Your task to perform on an android device: turn on data saver in the chrome app Image 0: 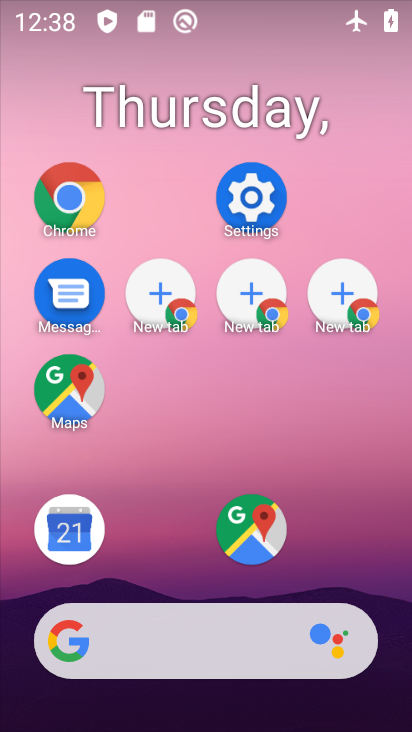
Step 0: click (154, 181)
Your task to perform on an android device: turn on data saver in the chrome app Image 1: 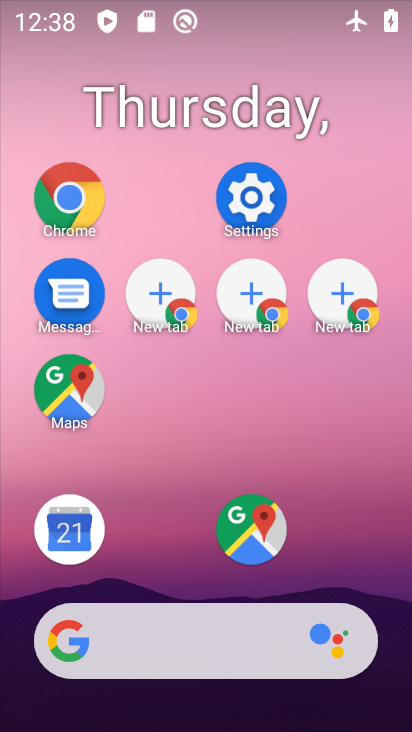
Step 1: drag from (176, 234) to (151, 192)
Your task to perform on an android device: turn on data saver in the chrome app Image 2: 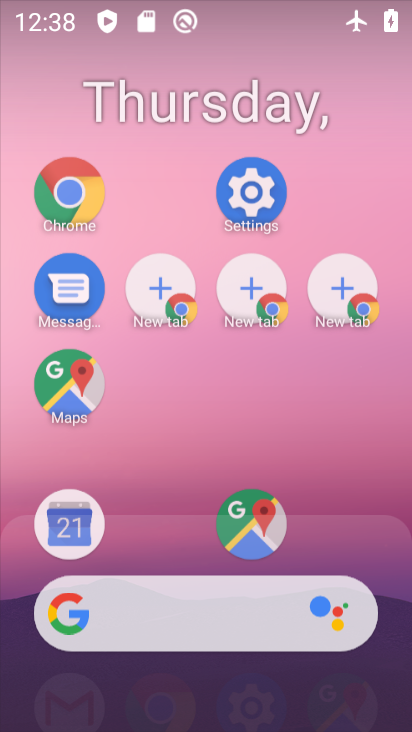
Step 2: click (170, 255)
Your task to perform on an android device: turn on data saver in the chrome app Image 3: 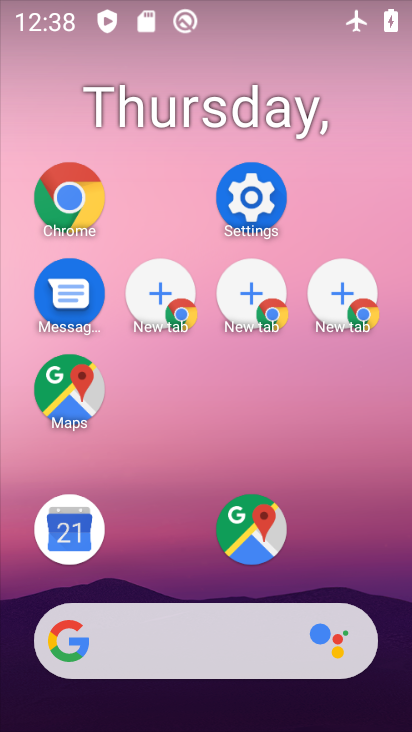
Step 3: click (111, 155)
Your task to perform on an android device: turn on data saver in the chrome app Image 4: 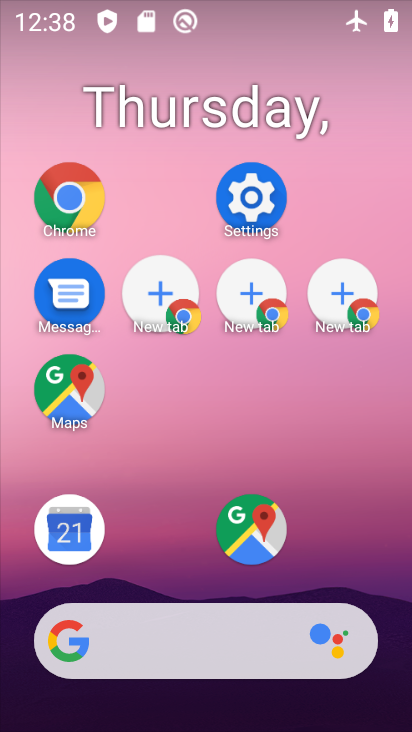
Step 4: click (188, 274)
Your task to perform on an android device: turn on data saver in the chrome app Image 5: 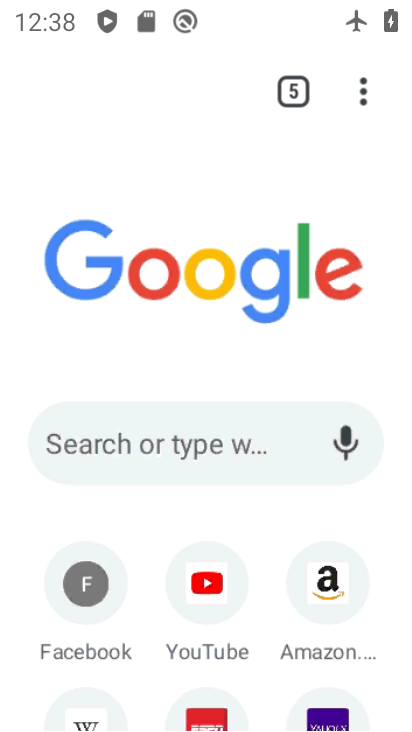
Step 5: drag from (331, 556) to (172, 176)
Your task to perform on an android device: turn on data saver in the chrome app Image 6: 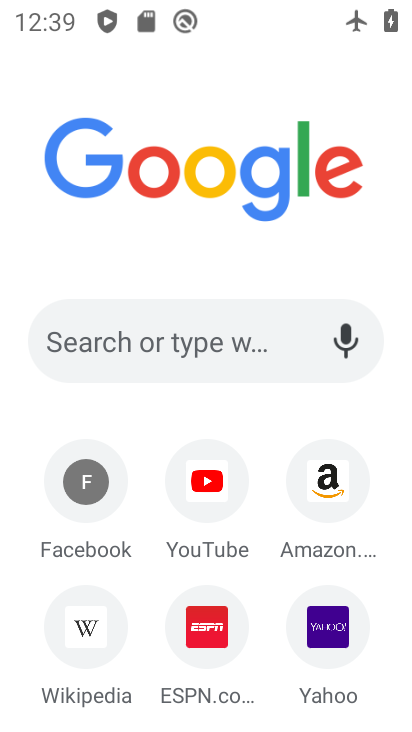
Step 6: click (357, 90)
Your task to perform on an android device: turn on data saver in the chrome app Image 7: 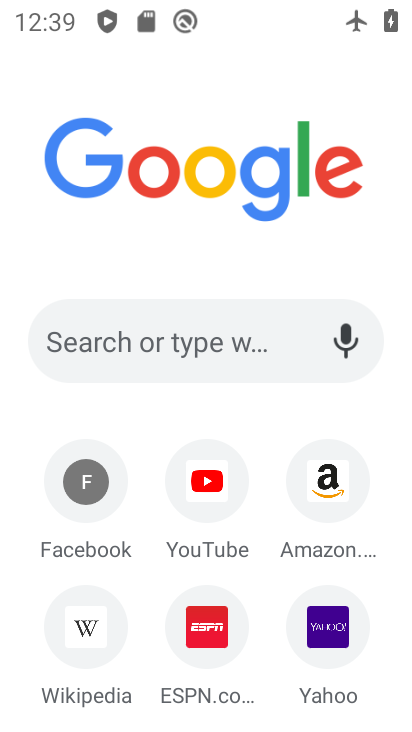
Step 7: drag from (336, 150) to (189, 645)
Your task to perform on an android device: turn on data saver in the chrome app Image 8: 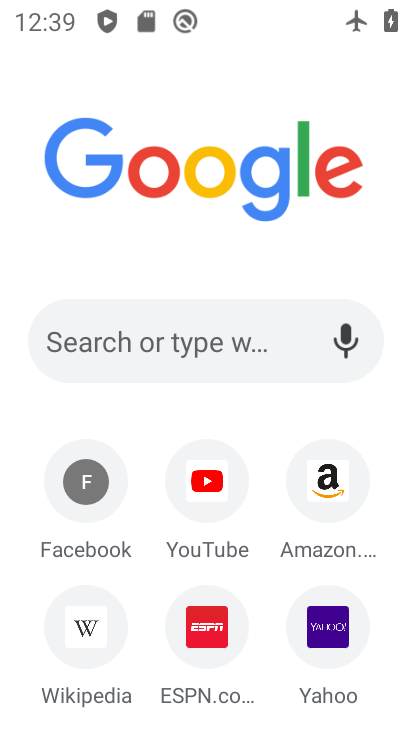
Step 8: drag from (277, 140) to (285, 500)
Your task to perform on an android device: turn on data saver in the chrome app Image 9: 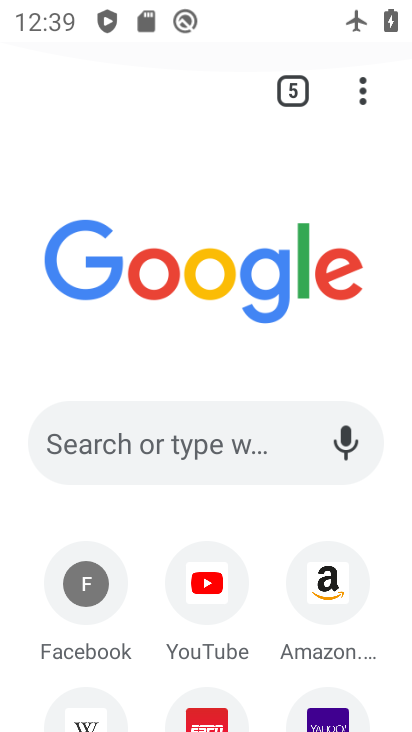
Step 9: drag from (209, 167) to (277, 481)
Your task to perform on an android device: turn on data saver in the chrome app Image 10: 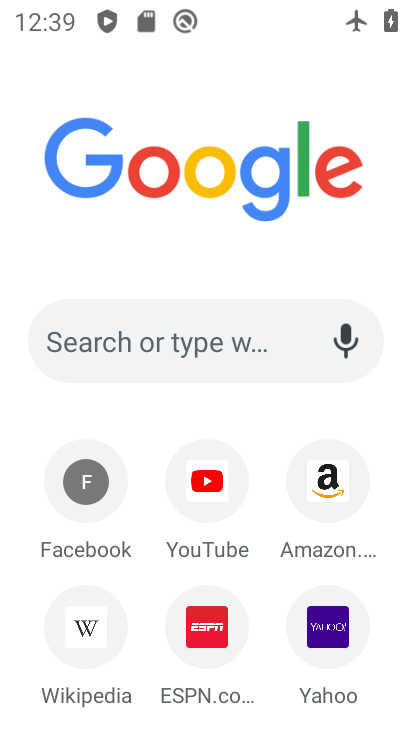
Step 10: click (364, 97)
Your task to perform on an android device: turn on data saver in the chrome app Image 11: 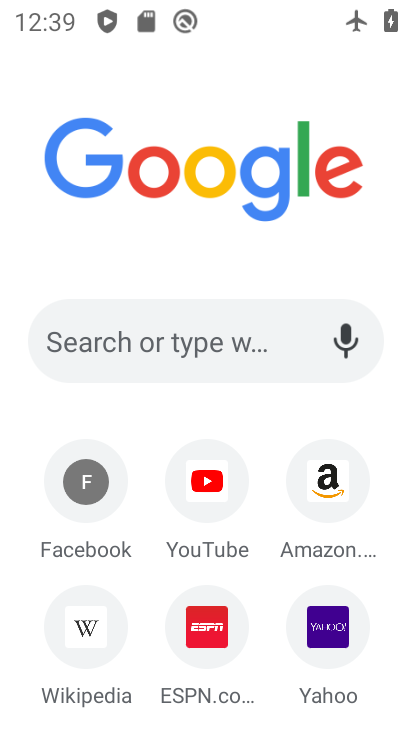
Step 11: click (363, 98)
Your task to perform on an android device: turn on data saver in the chrome app Image 12: 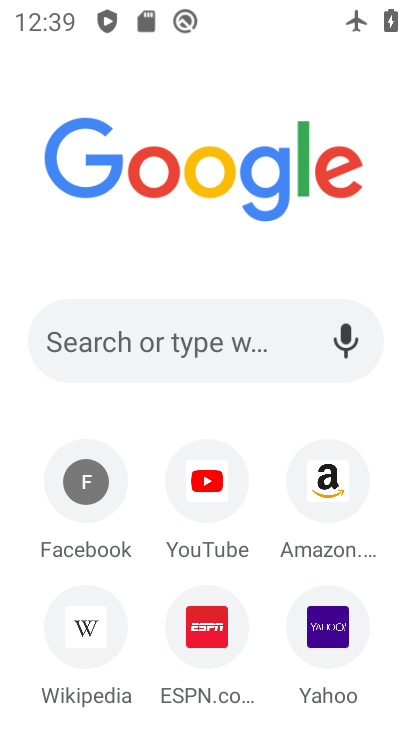
Step 12: drag from (283, 167) to (325, 496)
Your task to perform on an android device: turn on data saver in the chrome app Image 13: 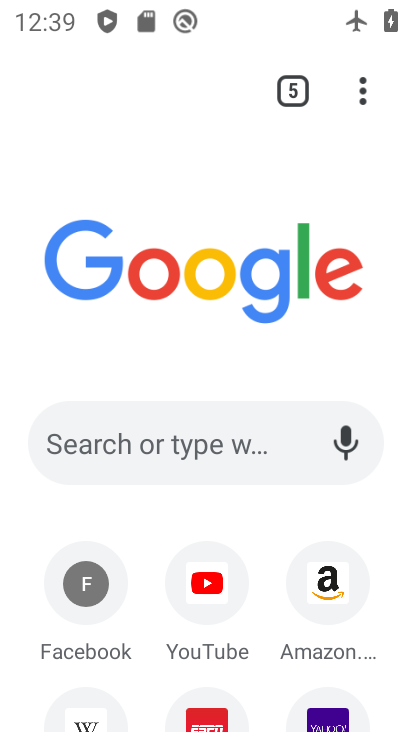
Step 13: click (363, 504)
Your task to perform on an android device: turn on data saver in the chrome app Image 14: 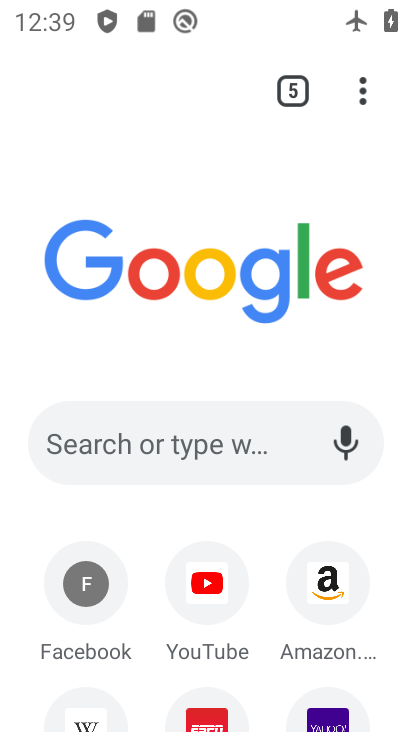
Step 14: drag from (359, 87) to (91, 552)
Your task to perform on an android device: turn on data saver in the chrome app Image 15: 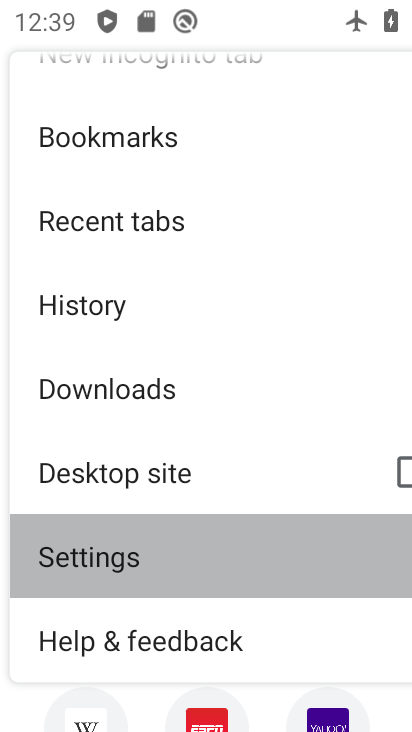
Step 15: click (91, 552)
Your task to perform on an android device: turn on data saver in the chrome app Image 16: 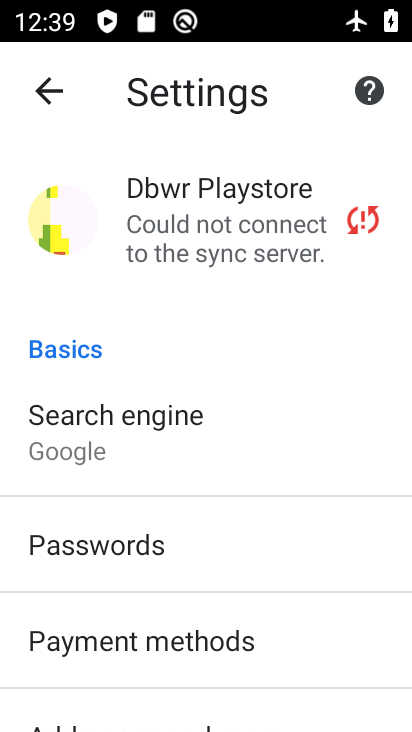
Step 16: drag from (50, 247) to (187, 106)
Your task to perform on an android device: turn on data saver in the chrome app Image 17: 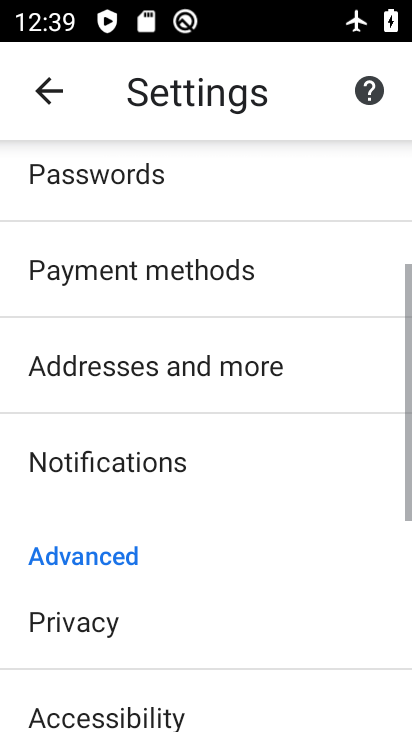
Step 17: drag from (161, 234) to (178, 290)
Your task to perform on an android device: turn on data saver in the chrome app Image 18: 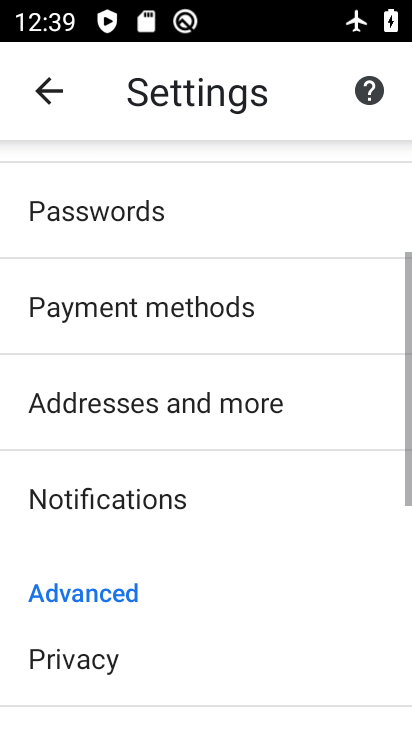
Step 18: drag from (171, 575) to (191, 357)
Your task to perform on an android device: turn on data saver in the chrome app Image 19: 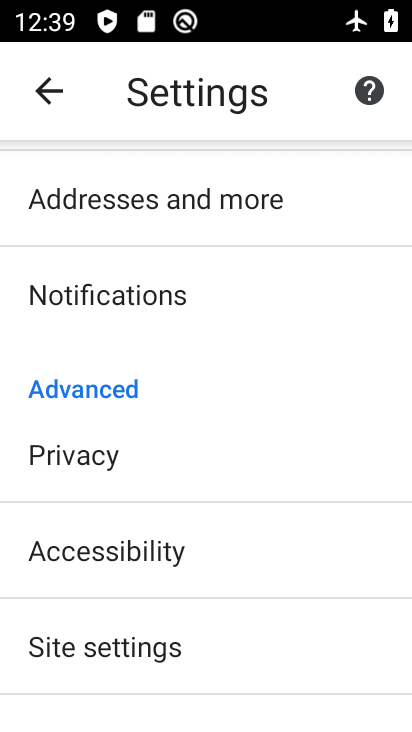
Step 19: click (131, 227)
Your task to perform on an android device: turn on data saver in the chrome app Image 20: 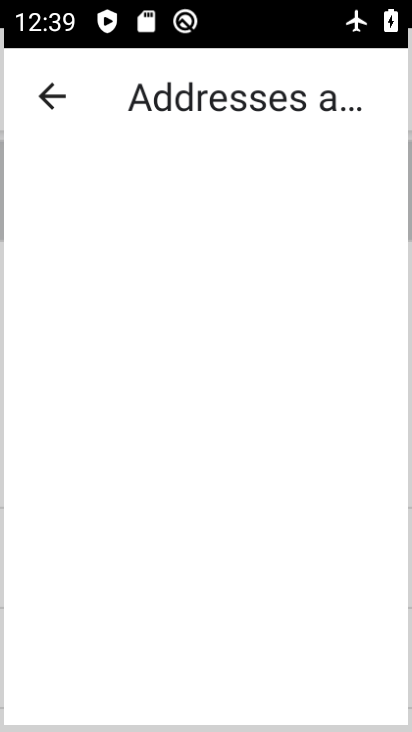
Step 20: drag from (148, 488) to (147, 187)
Your task to perform on an android device: turn on data saver in the chrome app Image 21: 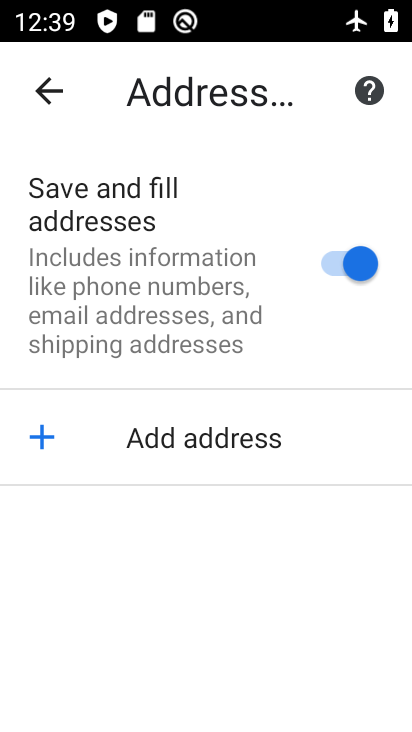
Step 21: click (41, 83)
Your task to perform on an android device: turn on data saver in the chrome app Image 22: 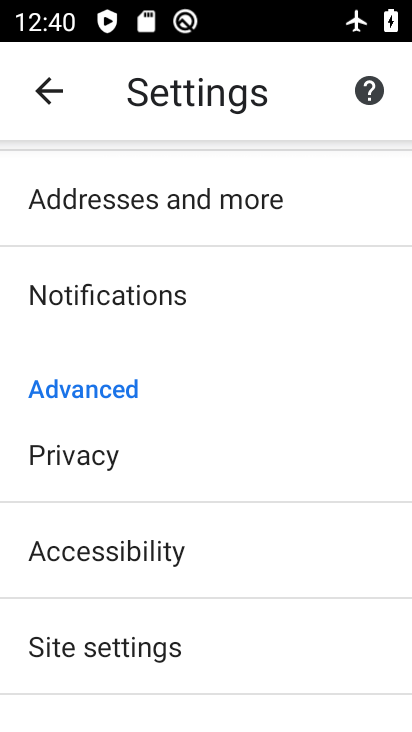
Step 22: drag from (102, 629) to (38, 403)
Your task to perform on an android device: turn on data saver in the chrome app Image 23: 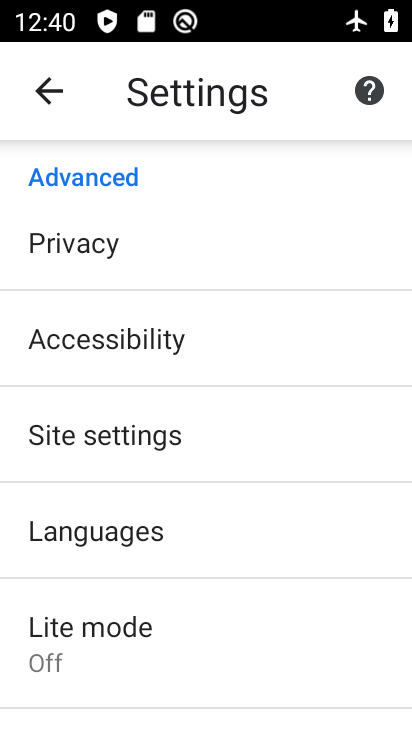
Step 23: click (137, 331)
Your task to perform on an android device: turn on data saver in the chrome app Image 24: 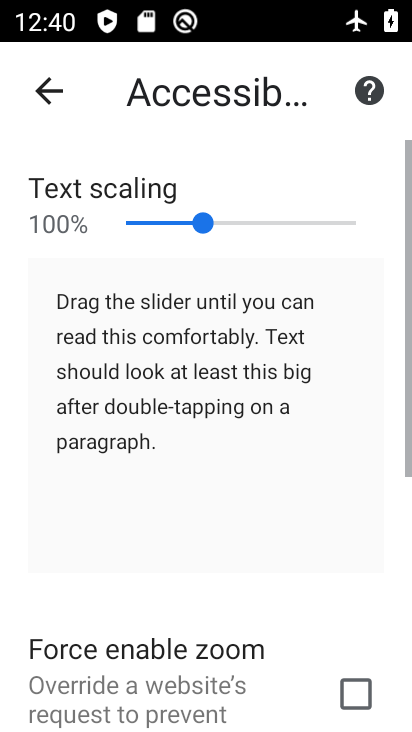
Step 24: click (192, 284)
Your task to perform on an android device: turn on data saver in the chrome app Image 25: 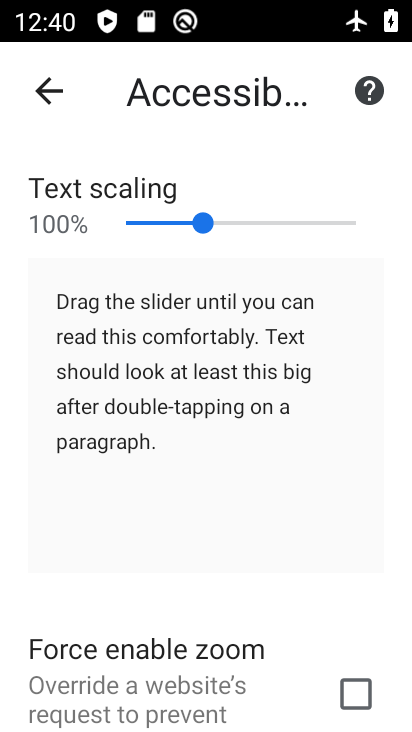
Step 25: click (51, 81)
Your task to perform on an android device: turn on data saver in the chrome app Image 26: 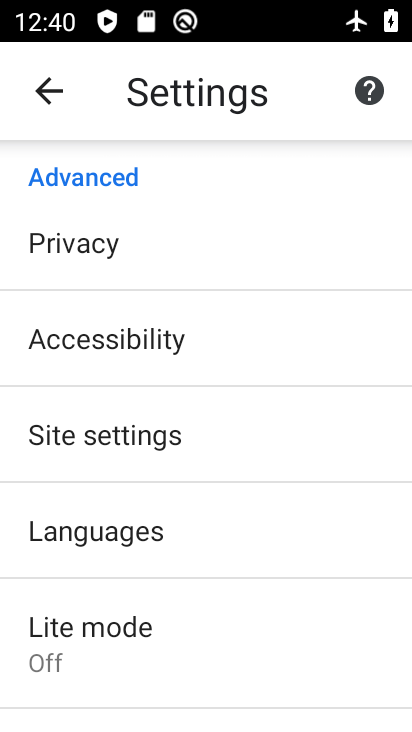
Step 26: click (79, 627)
Your task to perform on an android device: turn on data saver in the chrome app Image 27: 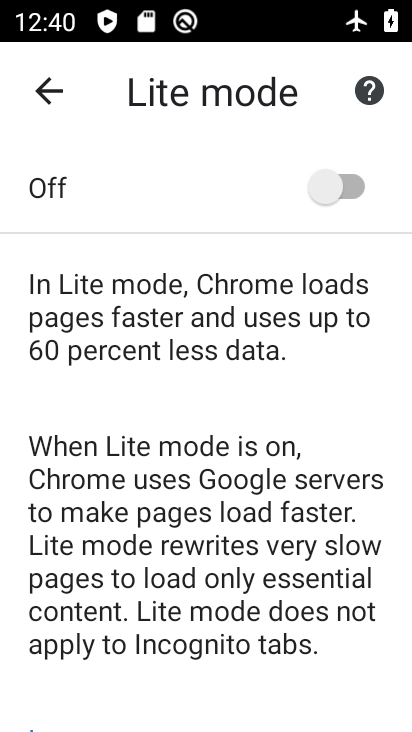
Step 27: click (36, 84)
Your task to perform on an android device: turn on data saver in the chrome app Image 28: 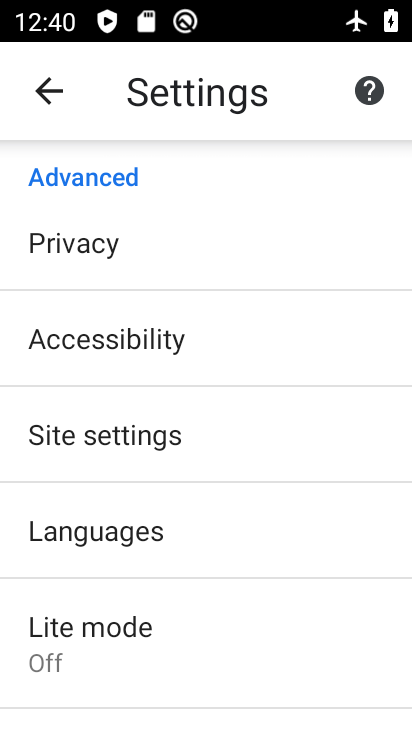
Step 28: click (88, 618)
Your task to perform on an android device: turn on data saver in the chrome app Image 29: 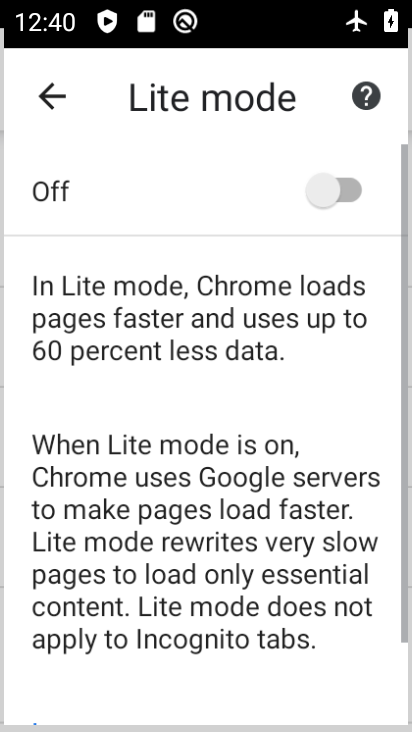
Step 29: click (88, 618)
Your task to perform on an android device: turn on data saver in the chrome app Image 30: 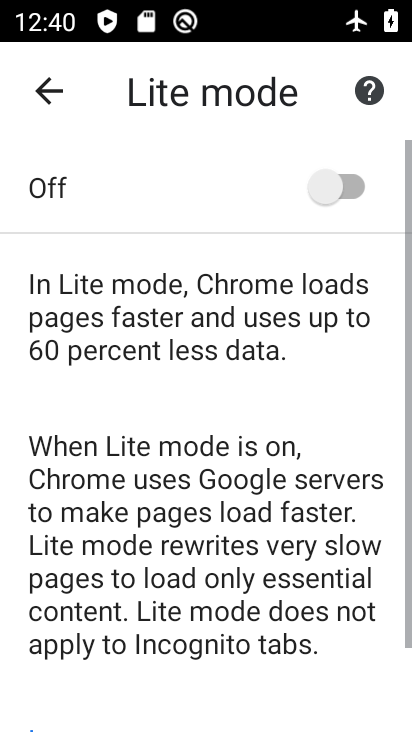
Step 30: click (88, 618)
Your task to perform on an android device: turn on data saver in the chrome app Image 31: 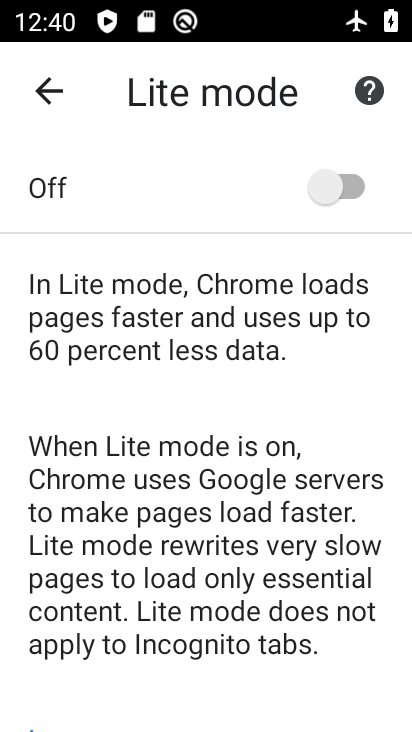
Step 31: click (326, 194)
Your task to perform on an android device: turn on data saver in the chrome app Image 32: 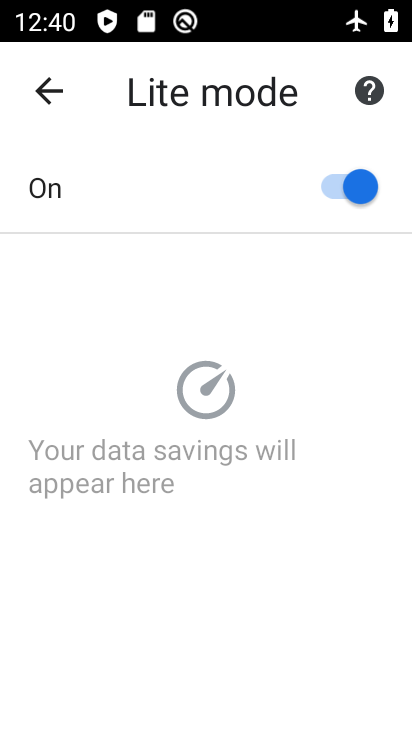
Step 32: click (335, 182)
Your task to perform on an android device: turn on data saver in the chrome app Image 33: 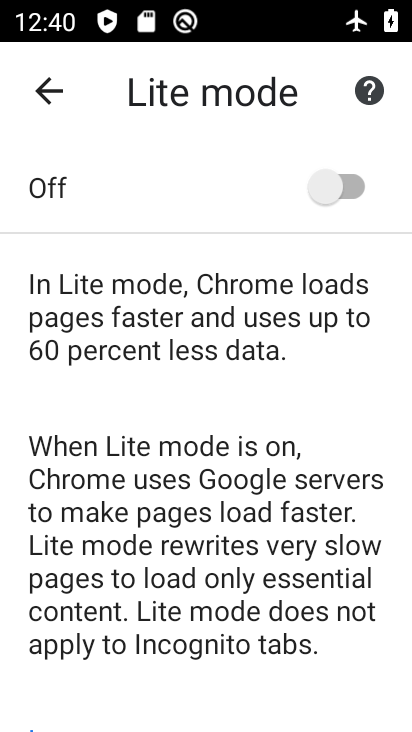
Step 33: click (315, 186)
Your task to perform on an android device: turn on data saver in the chrome app Image 34: 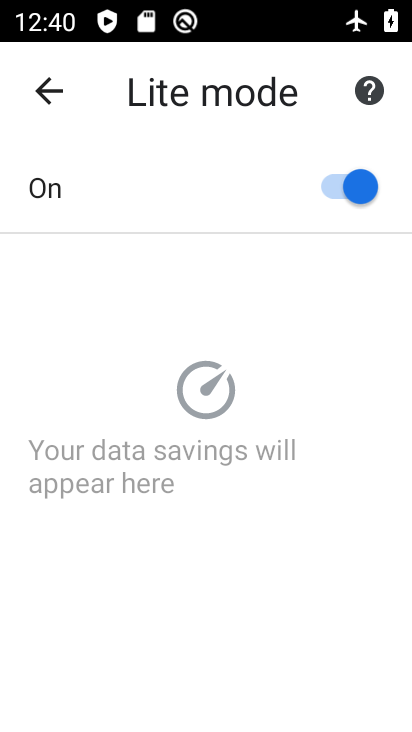
Step 34: task complete